Your task to perform on an android device: Open Amazon Image 0: 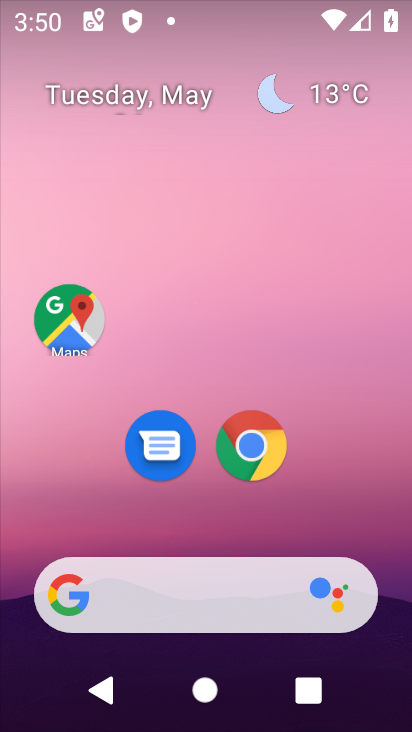
Step 0: click (245, 438)
Your task to perform on an android device: Open Amazon Image 1: 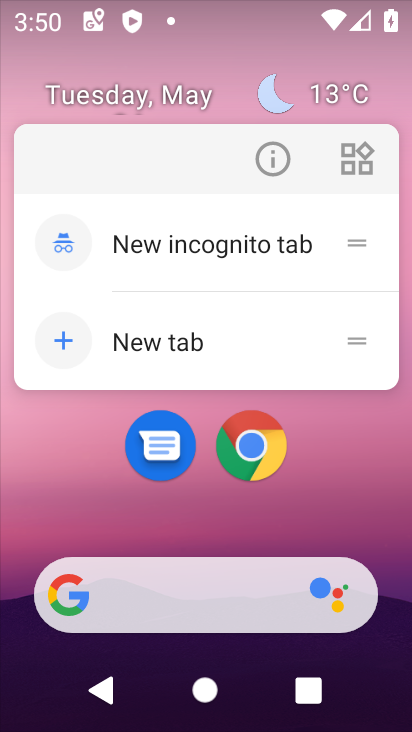
Step 1: click (247, 443)
Your task to perform on an android device: Open Amazon Image 2: 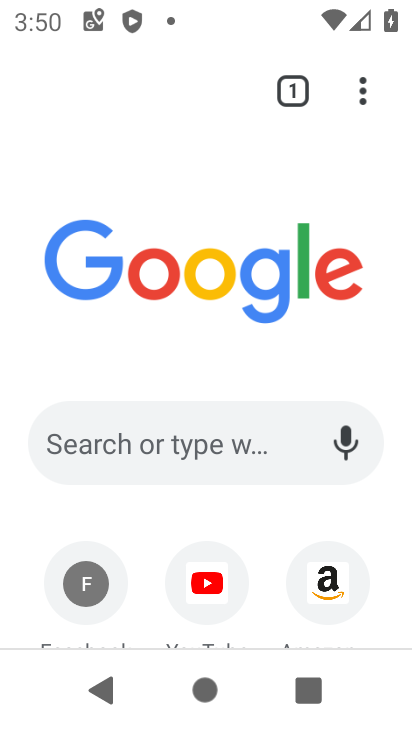
Step 2: click (331, 572)
Your task to perform on an android device: Open Amazon Image 3: 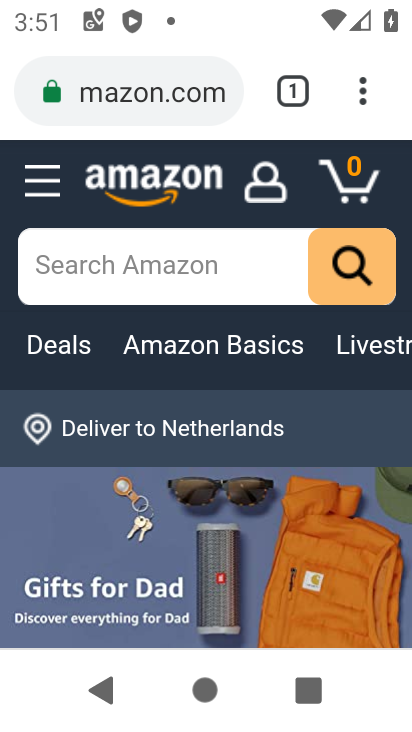
Step 3: task complete